Your task to perform on an android device: Go to ESPN.com Image 0: 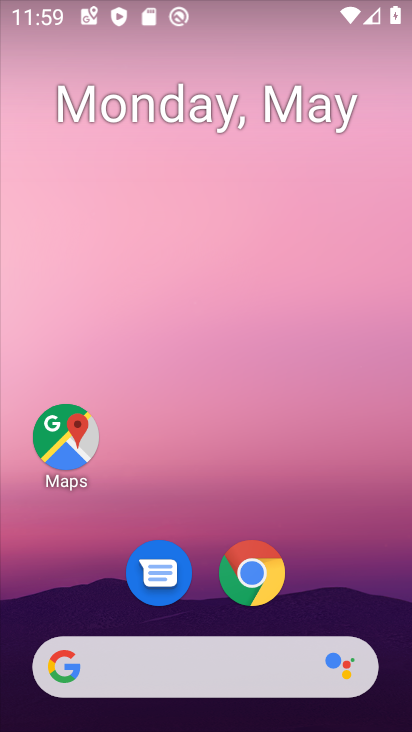
Step 0: drag from (246, 609) to (211, 159)
Your task to perform on an android device: Go to ESPN.com Image 1: 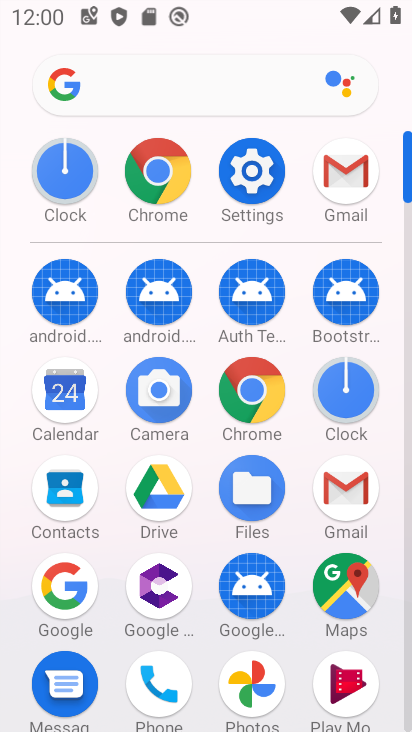
Step 1: click (157, 188)
Your task to perform on an android device: Go to ESPN.com Image 2: 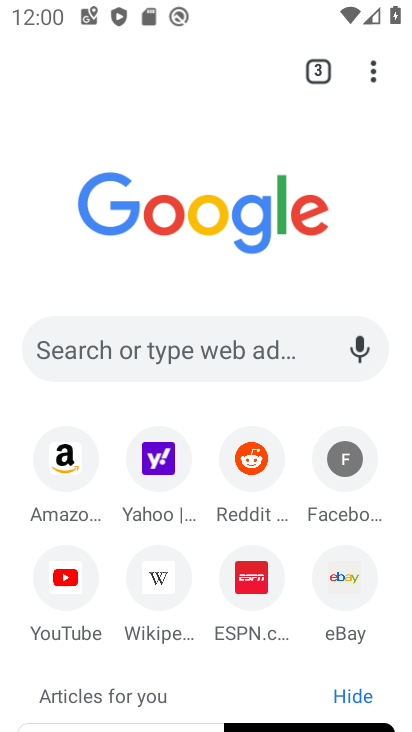
Step 2: click (245, 578)
Your task to perform on an android device: Go to ESPN.com Image 3: 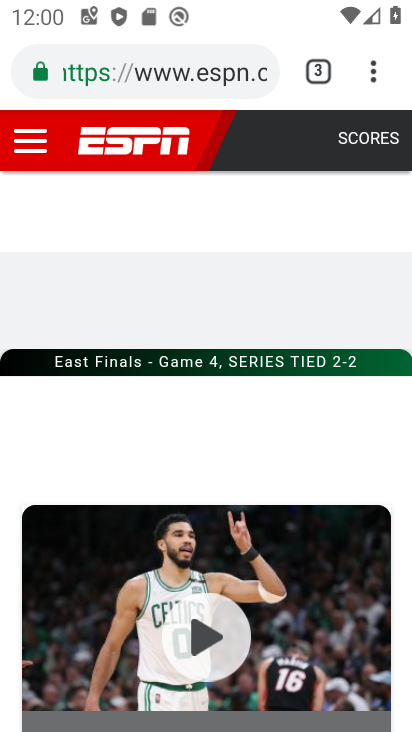
Step 3: task complete